Your task to perform on an android device: Check the weather Image 0: 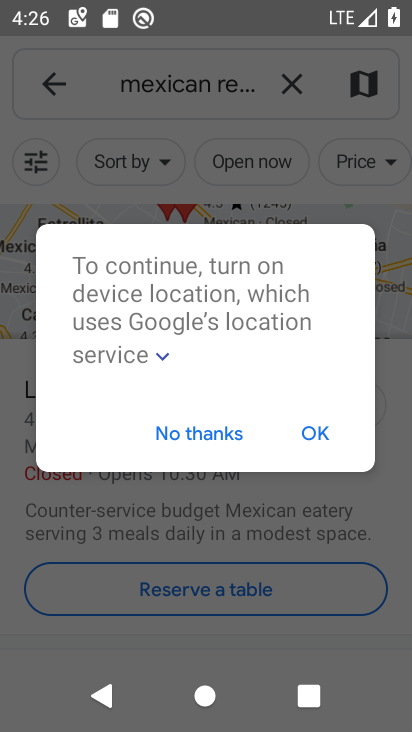
Step 0: press back button
Your task to perform on an android device: Check the weather Image 1: 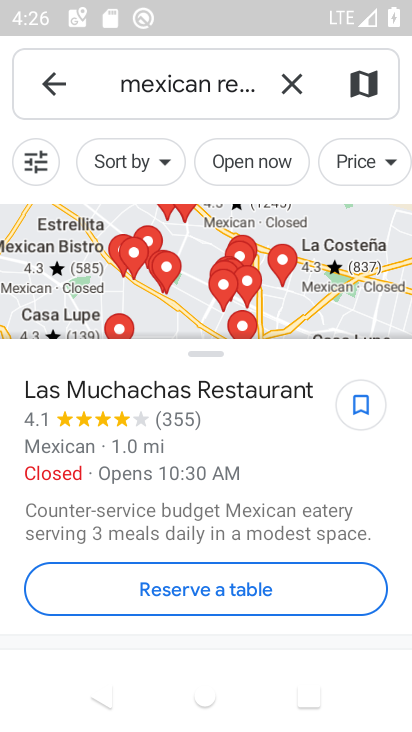
Step 1: press home button
Your task to perform on an android device: Check the weather Image 2: 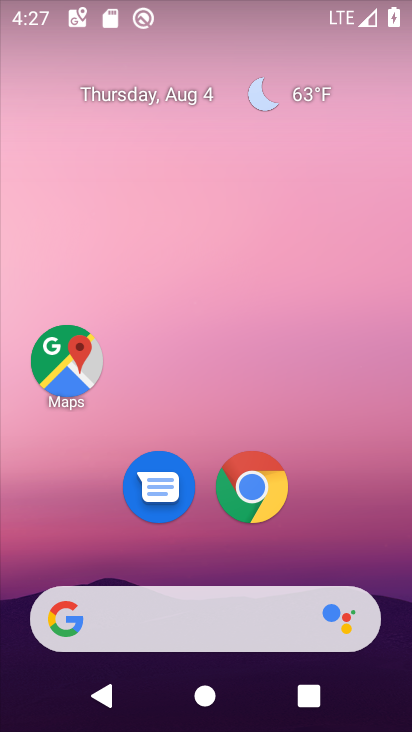
Step 2: click (212, 631)
Your task to perform on an android device: Check the weather Image 3: 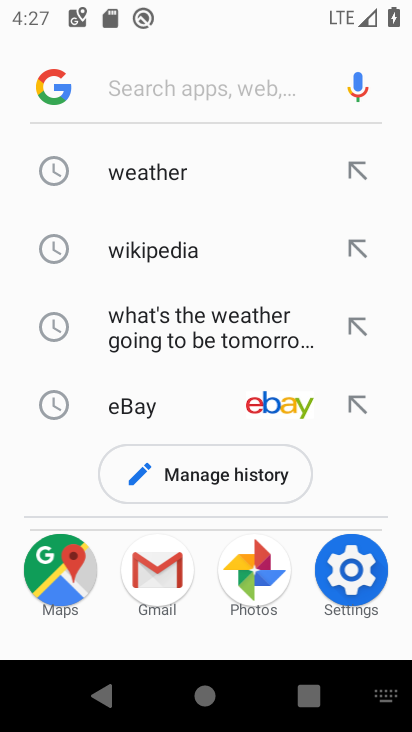
Step 3: click (139, 173)
Your task to perform on an android device: Check the weather Image 4: 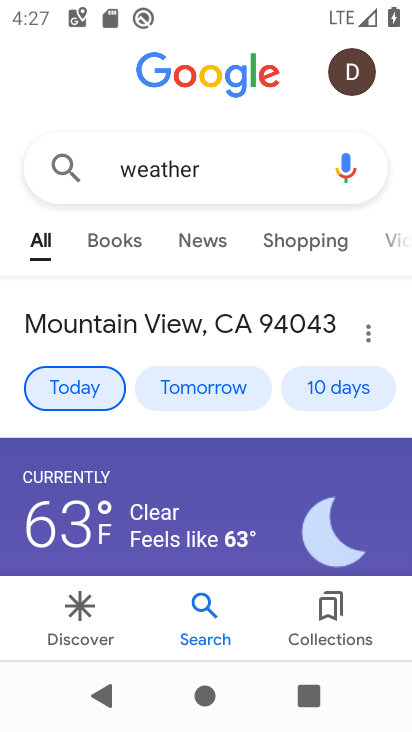
Step 4: task complete